Your task to perform on an android device: Open the calendar app, open the side menu, and click the "Day" option Image 0: 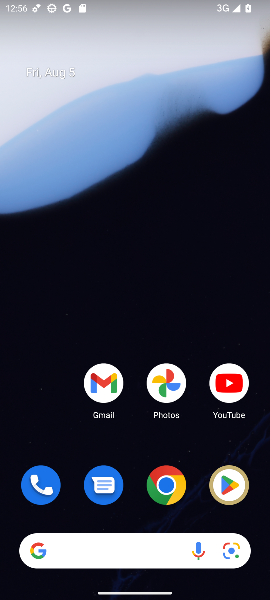
Step 0: drag from (44, 422) to (87, 23)
Your task to perform on an android device: Open the calendar app, open the side menu, and click the "Day" option Image 1: 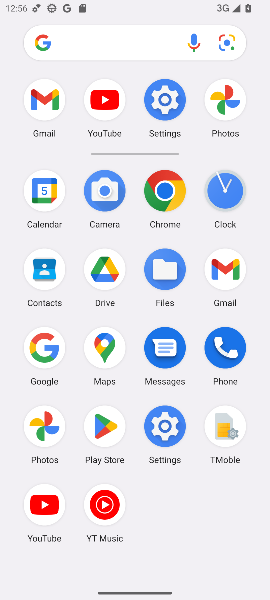
Step 1: click (43, 188)
Your task to perform on an android device: Open the calendar app, open the side menu, and click the "Day" option Image 2: 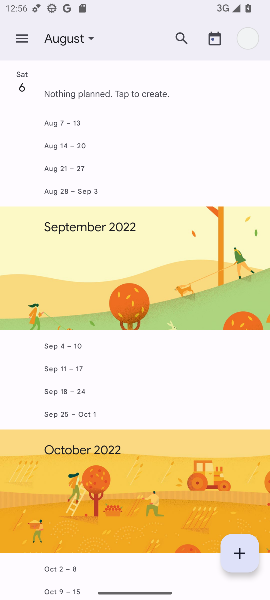
Step 2: click (25, 37)
Your task to perform on an android device: Open the calendar app, open the side menu, and click the "Day" option Image 3: 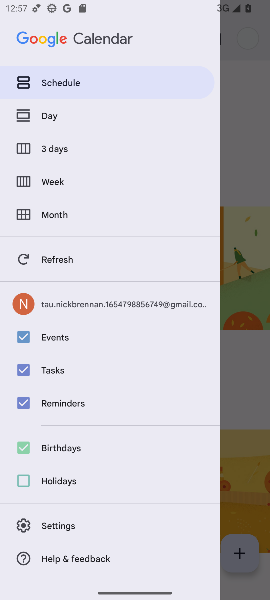
Step 3: click (54, 115)
Your task to perform on an android device: Open the calendar app, open the side menu, and click the "Day" option Image 4: 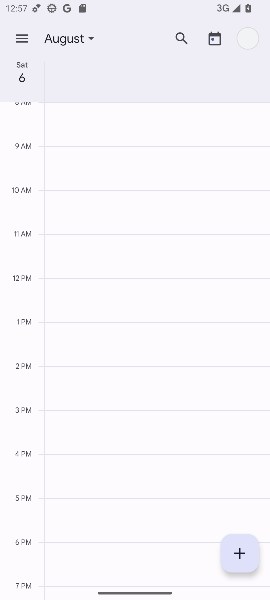
Step 4: task complete